Your task to perform on an android device: turn on notifications settings in the gmail app Image 0: 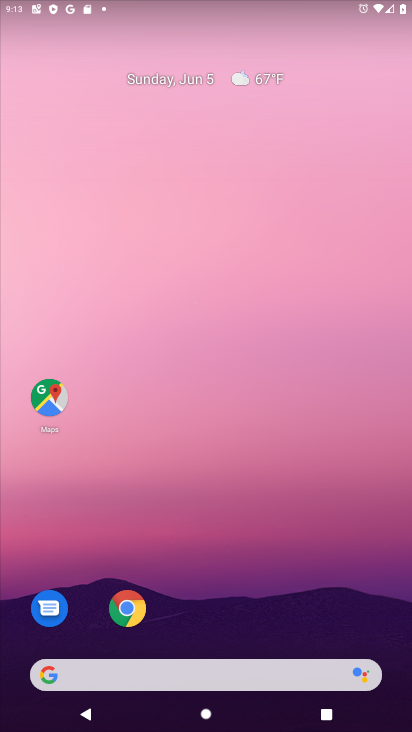
Step 0: drag from (7, 582) to (268, 99)
Your task to perform on an android device: turn on notifications settings in the gmail app Image 1: 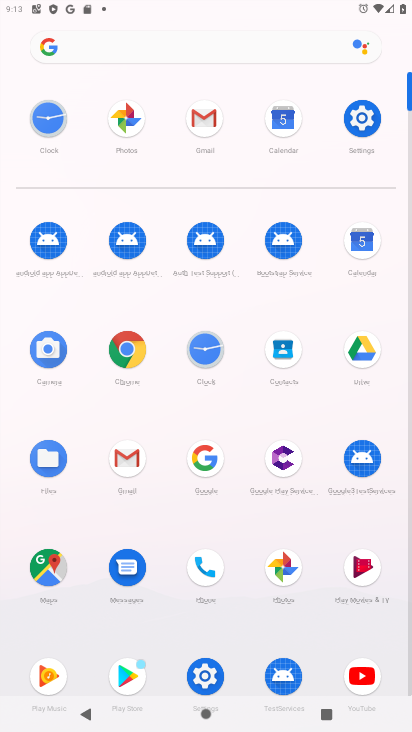
Step 1: click (210, 123)
Your task to perform on an android device: turn on notifications settings in the gmail app Image 2: 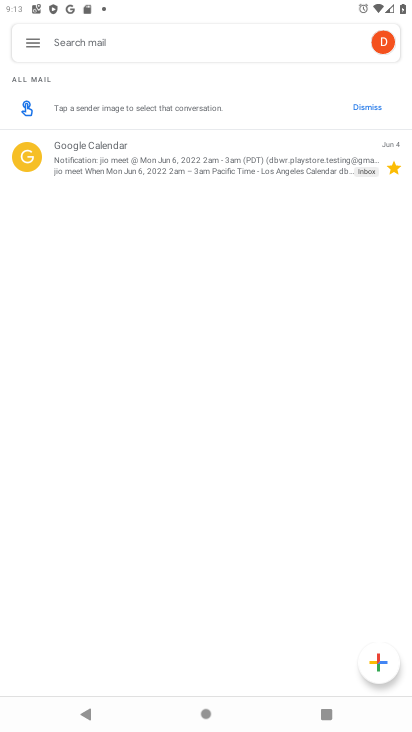
Step 2: click (33, 42)
Your task to perform on an android device: turn on notifications settings in the gmail app Image 3: 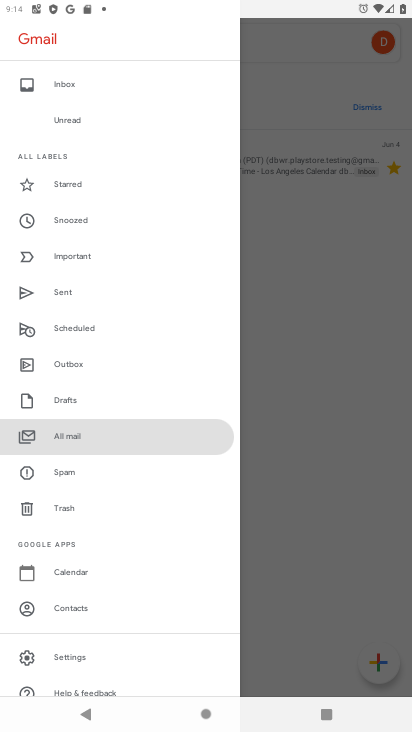
Step 3: click (57, 658)
Your task to perform on an android device: turn on notifications settings in the gmail app Image 4: 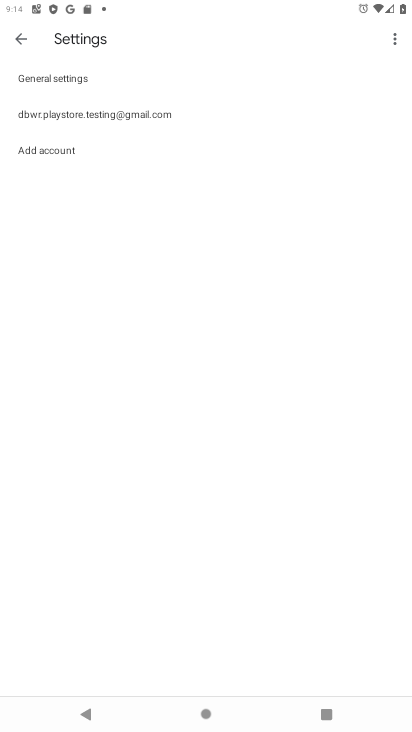
Step 4: click (90, 111)
Your task to perform on an android device: turn on notifications settings in the gmail app Image 5: 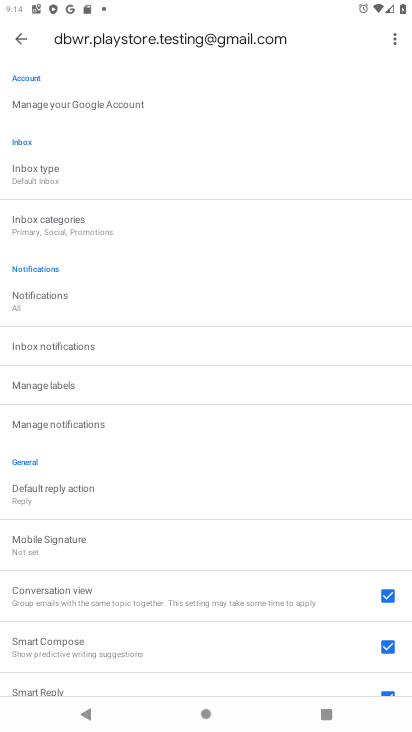
Step 5: click (79, 431)
Your task to perform on an android device: turn on notifications settings in the gmail app Image 6: 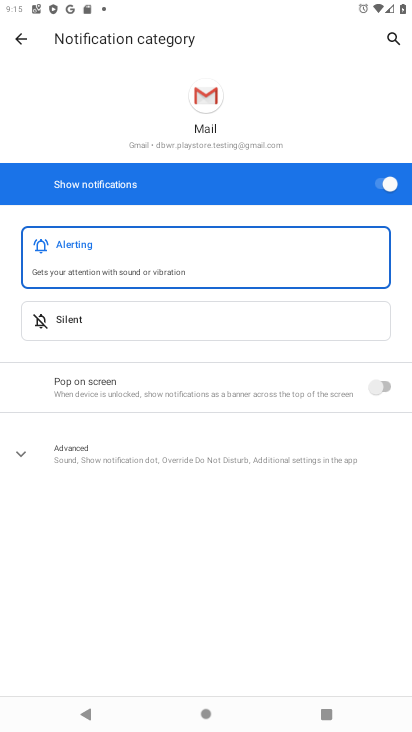
Step 6: task complete